Your task to perform on an android device: What's the latest technology news? Image 0: 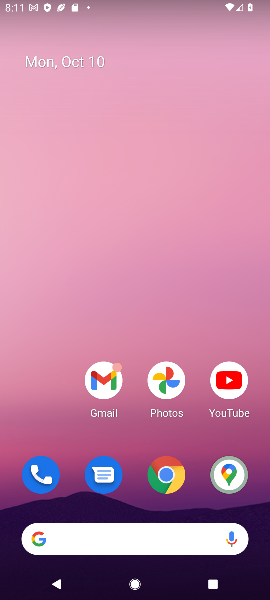
Step 0: click (164, 467)
Your task to perform on an android device: What's the latest technology news? Image 1: 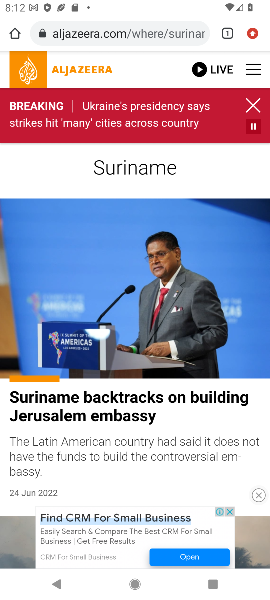
Step 1: click (96, 26)
Your task to perform on an android device: What's the latest technology news? Image 2: 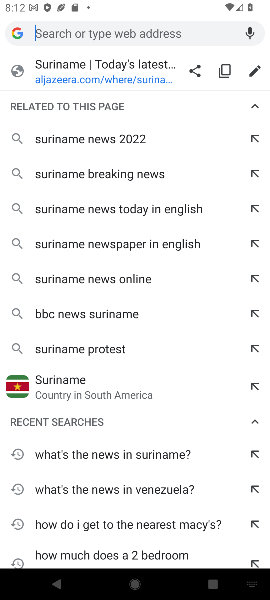
Step 2: drag from (41, 585) to (267, 594)
Your task to perform on an android device: What's the latest technology news? Image 3: 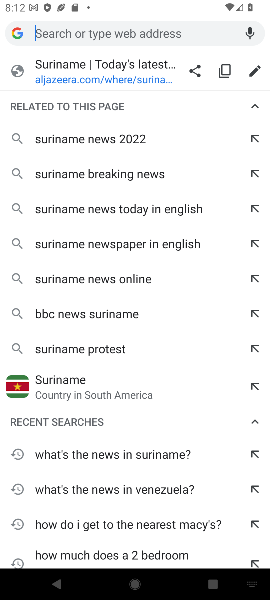
Step 3: type "What's the latest technology news?"
Your task to perform on an android device: What's the latest technology news? Image 4: 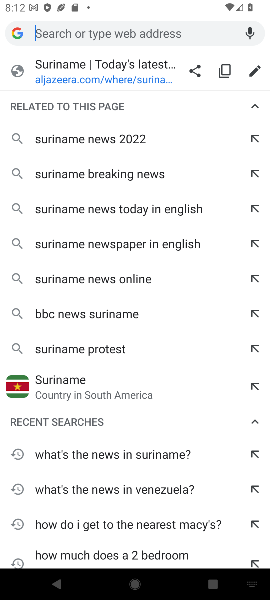
Step 4: click (184, 33)
Your task to perform on an android device: What's the latest technology news? Image 5: 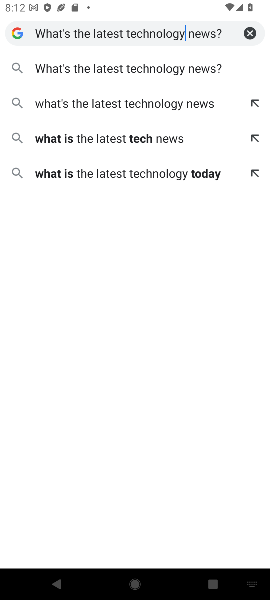
Step 5: click (152, 67)
Your task to perform on an android device: What's the latest technology news? Image 6: 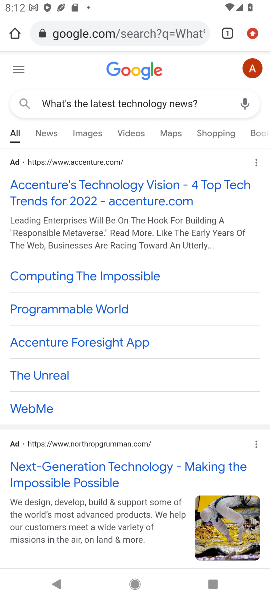
Step 6: click (208, 187)
Your task to perform on an android device: What's the latest technology news? Image 7: 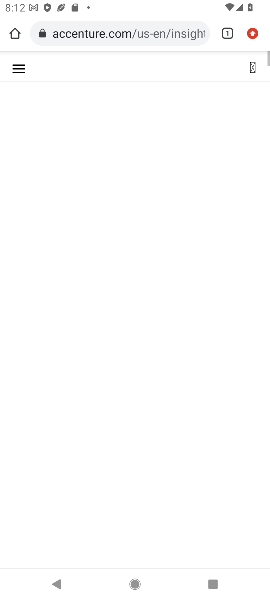
Step 7: task complete